Your task to perform on an android device: Show the shopping cart on walmart.com. Image 0: 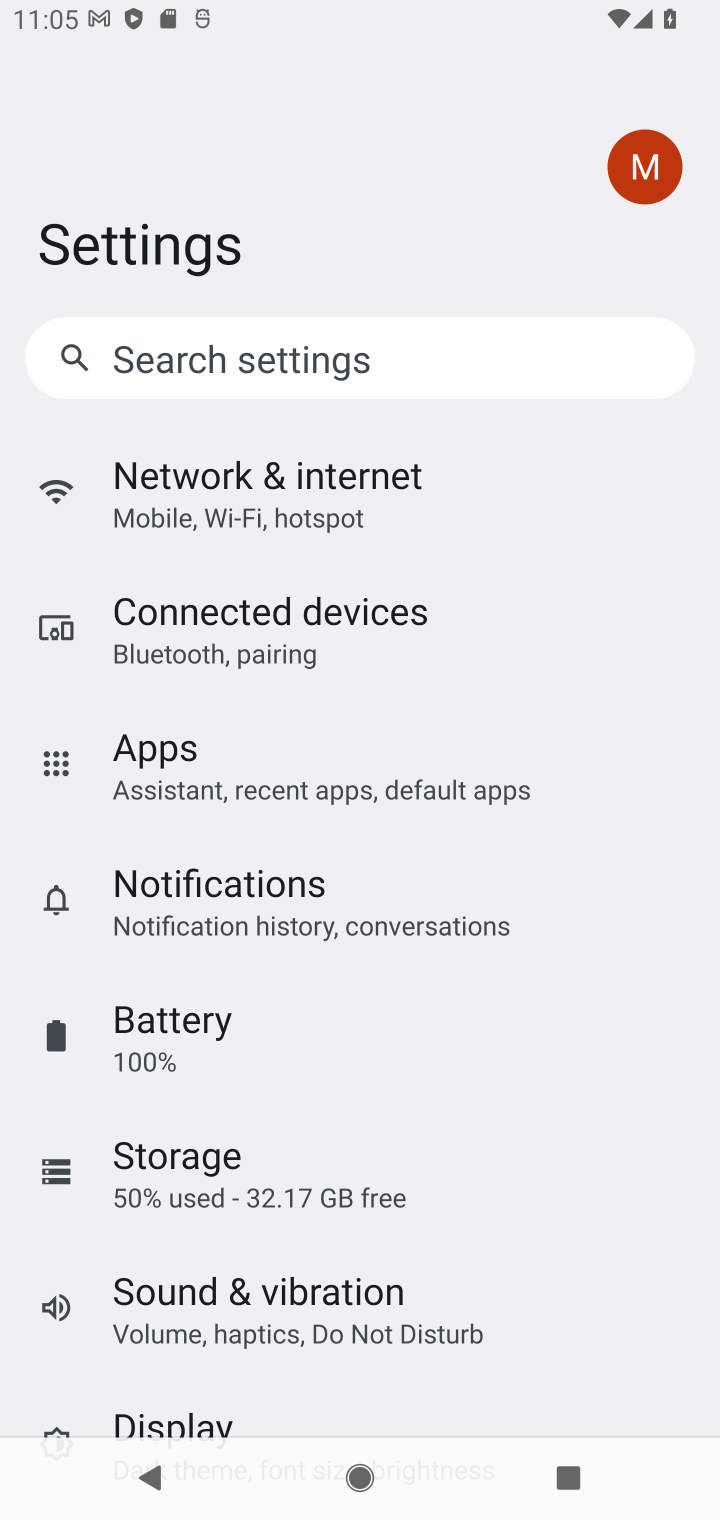
Step 0: press home button
Your task to perform on an android device: Show the shopping cart on walmart.com. Image 1: 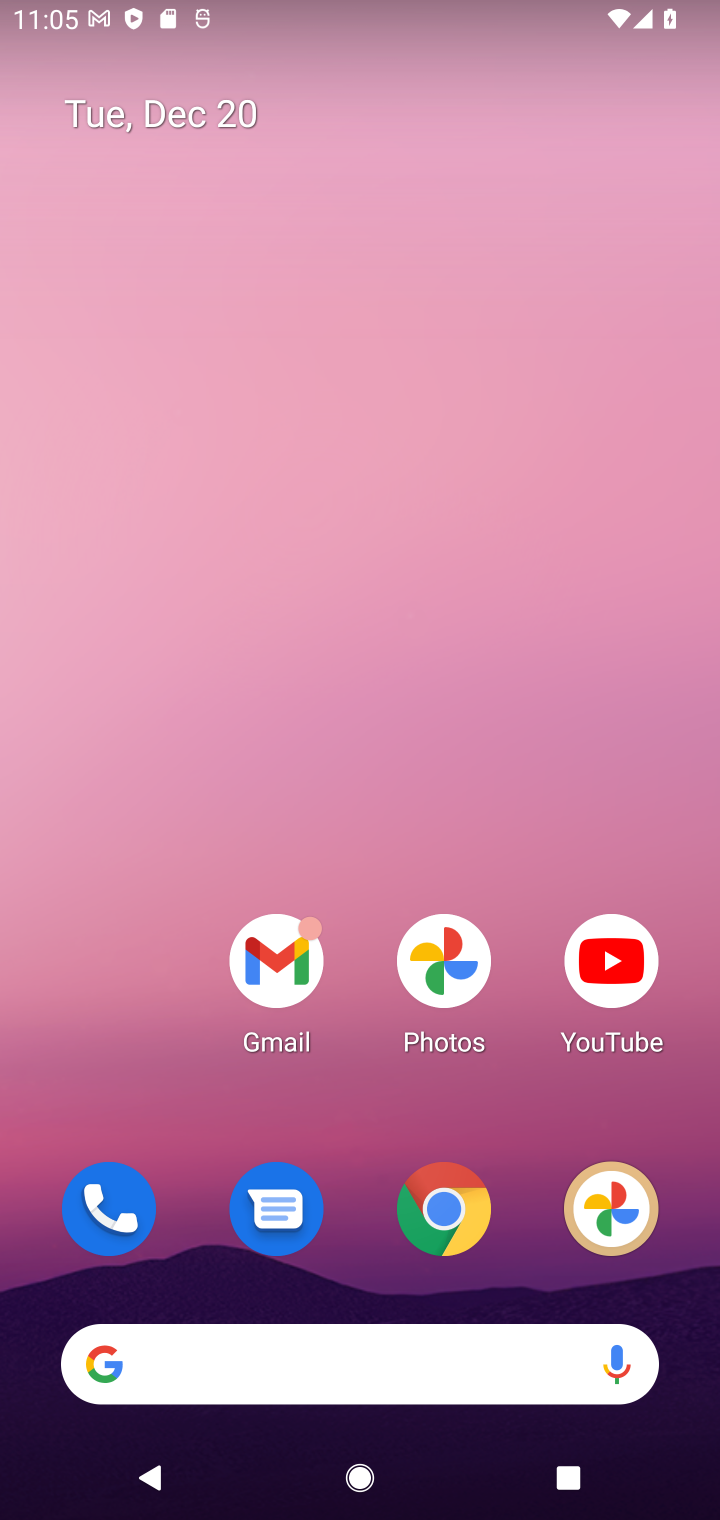
Step 1: click (450, 1227)
Your task to perform on an android device: Show the shopping cart on walmart.com. Image 2: 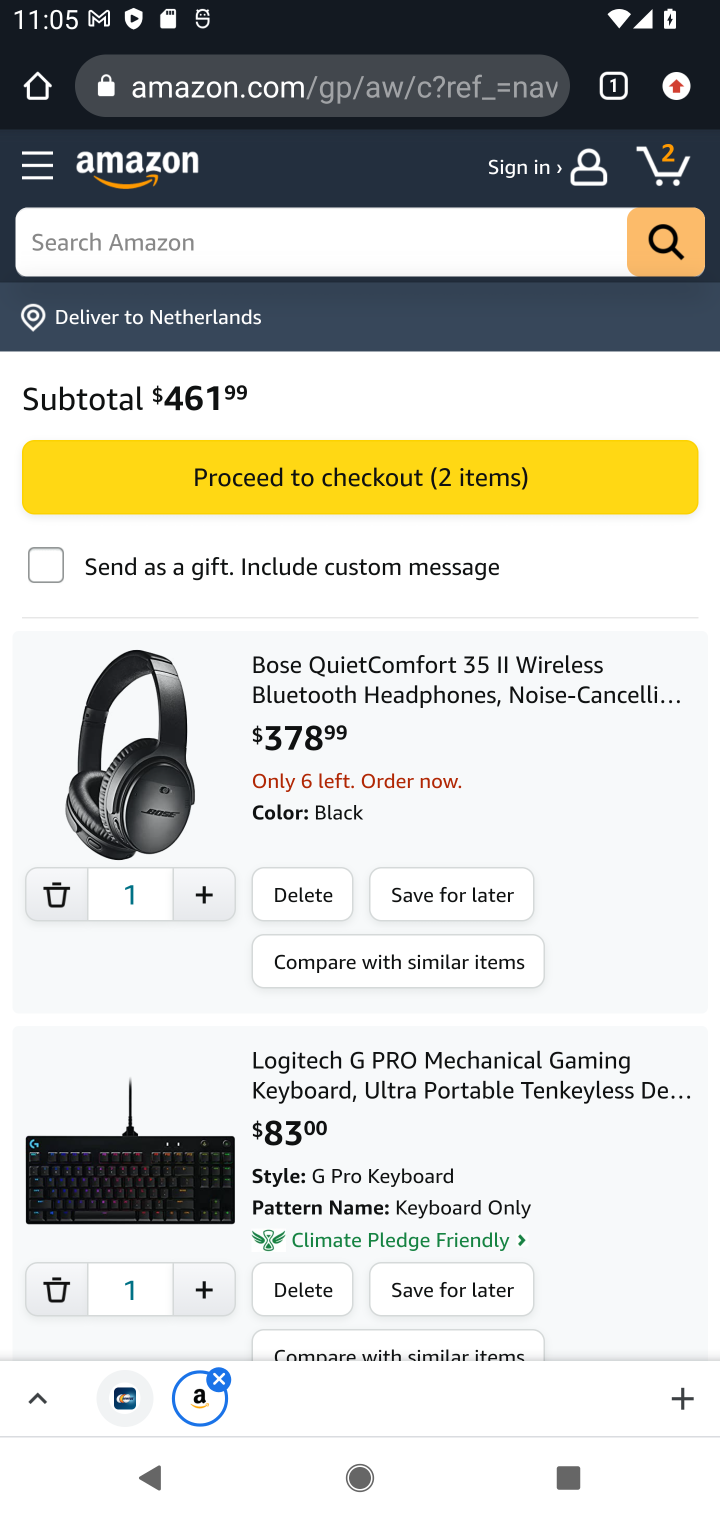
Step 2: click (251, 87)
Your task to perform on an android device: Show the shopping cart on walmart.com. Image 3: 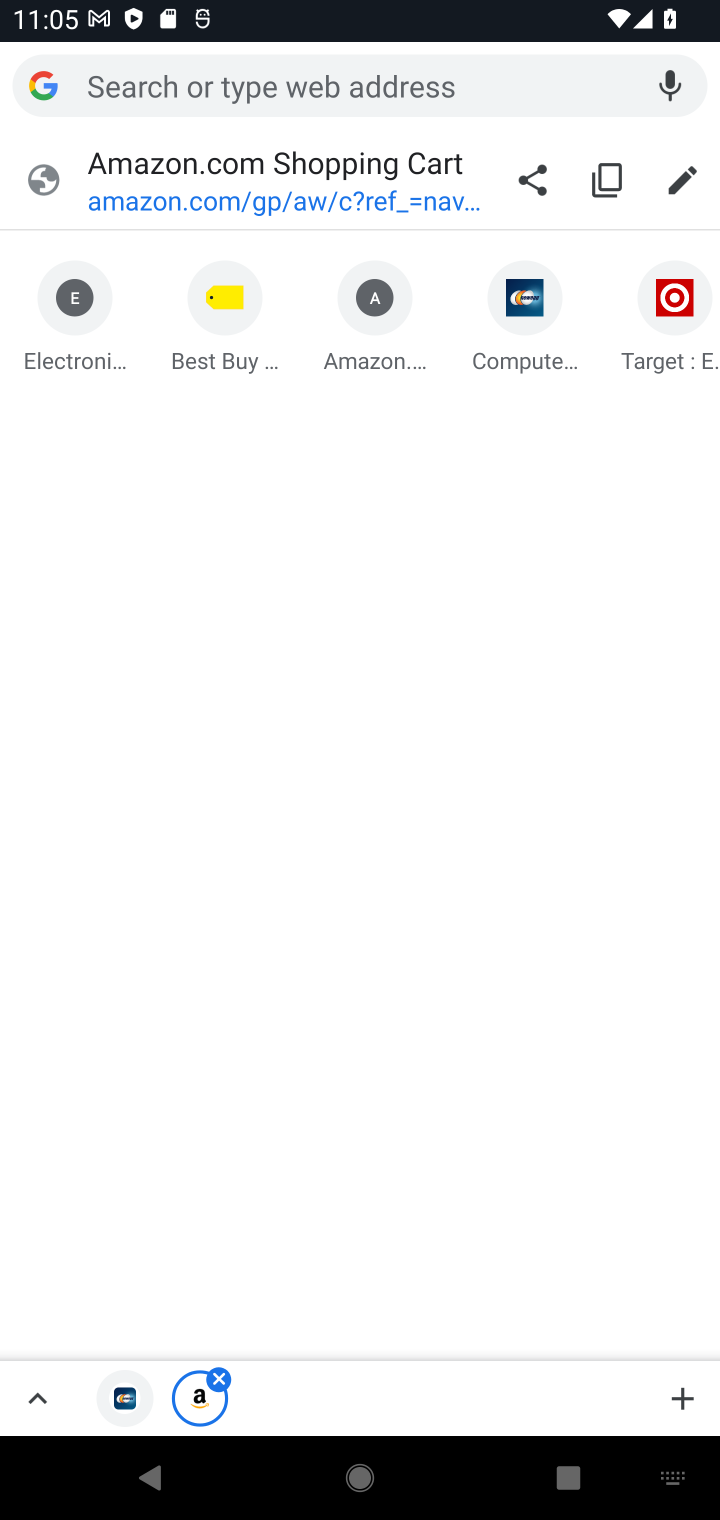
Step 3: type "walmart.com"
Your task to perform on an android device: Show the shopping cart on walmart.com. Image 4: 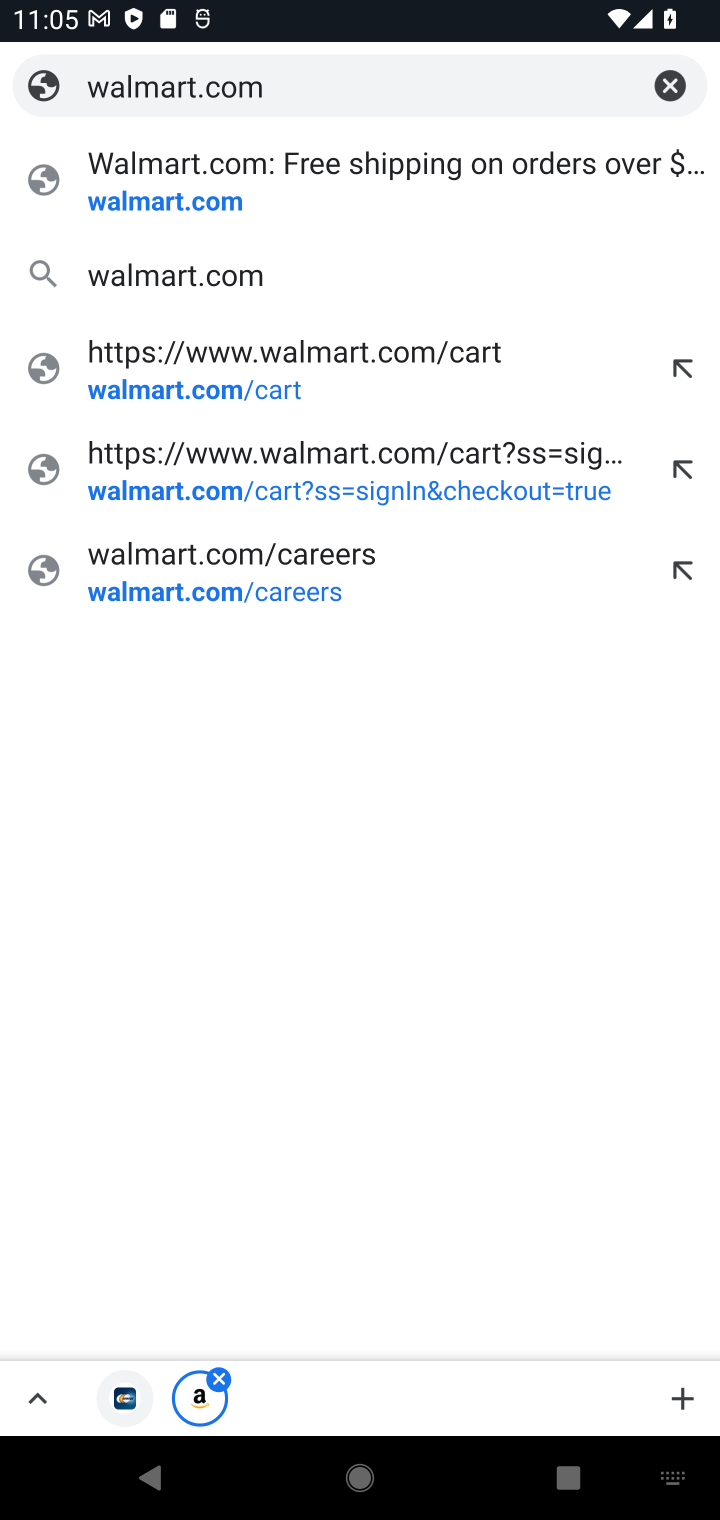
Step 4: click (130, 194)
Your task to perform on an android device: Show the shopping cart on walmart.com. Image 5: 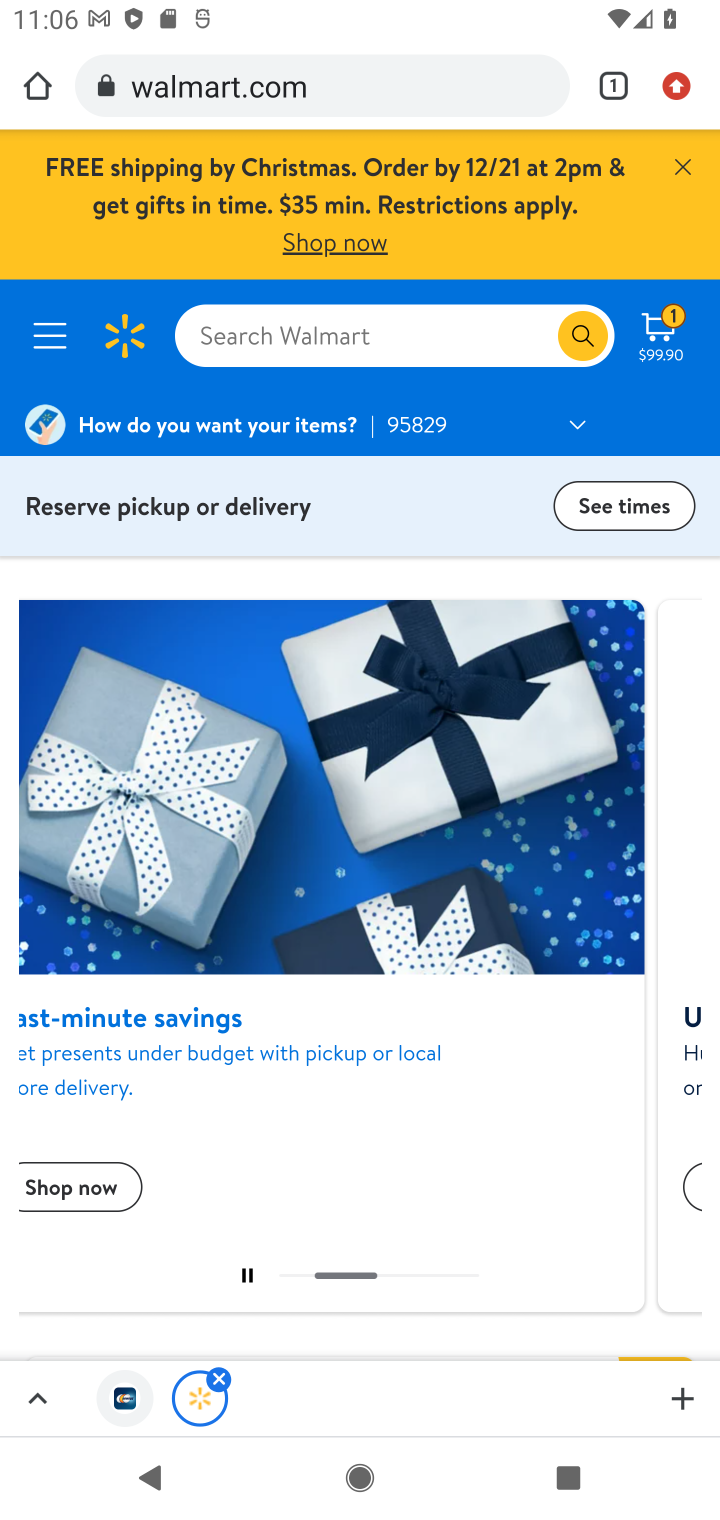
Step 5: click (665, 342)
Your task to perform on an android device: Show the shopping cart on walmart.com. Image 6: 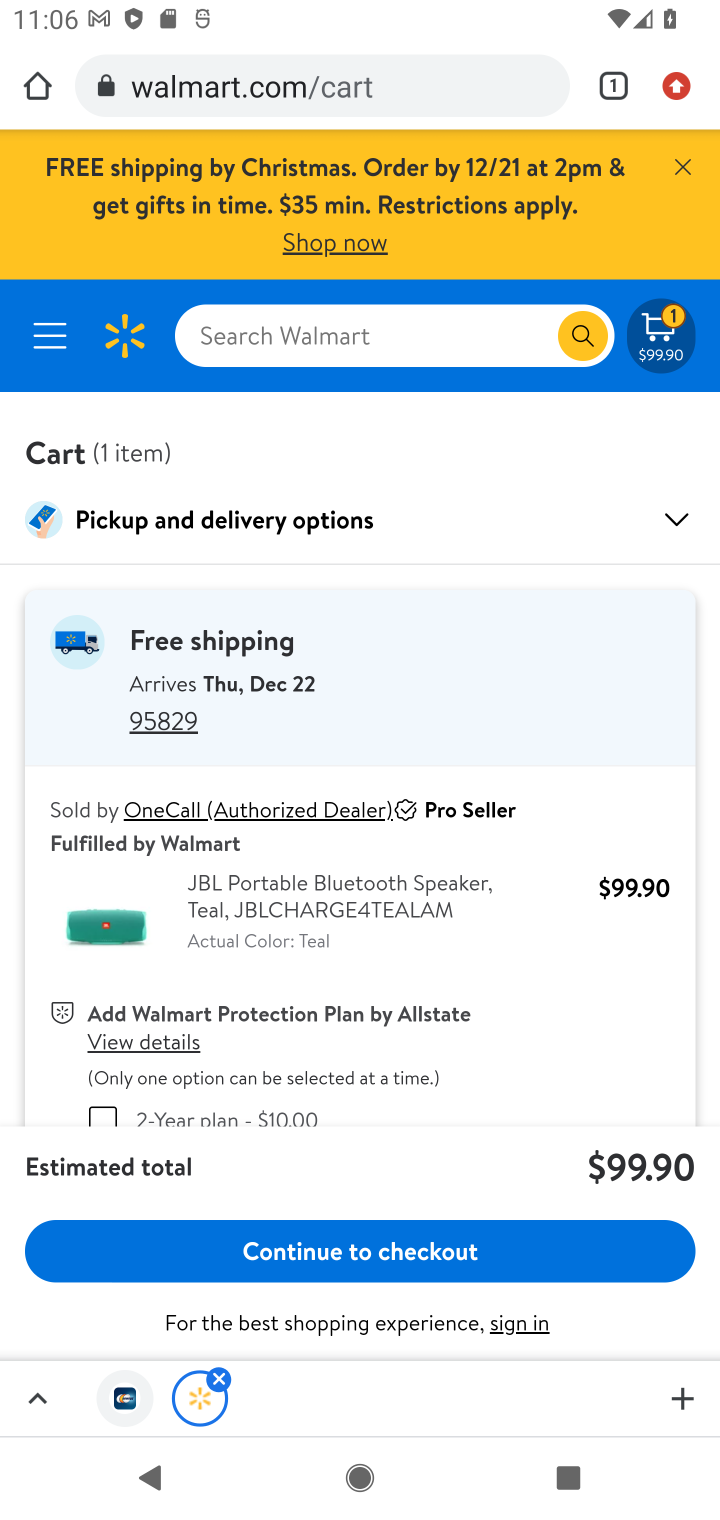
Step 6: task complete